Your task to perform on an android device: Open battery settings Image 0: 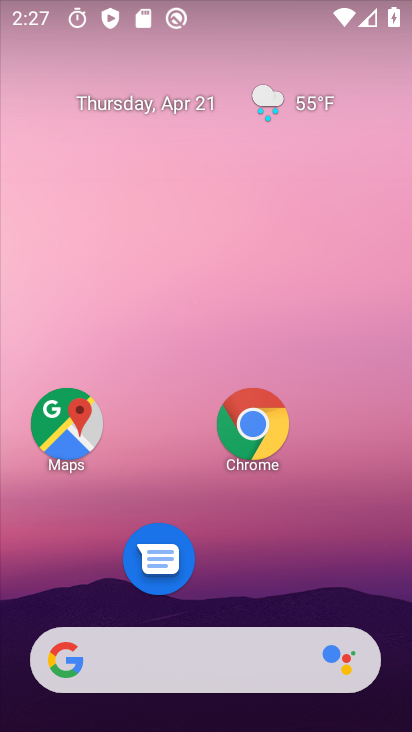
Step 0: drag from (246, 416) to (225, 94)
Your task to perform on an android device: Open battery settings Image 1: 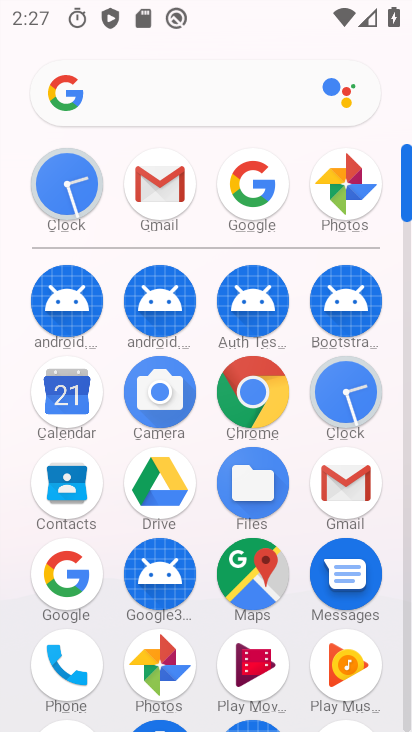
Step 1: drag from (200, 453) to (197, 181)
Your task to perform on an android device: Open battery settings Image 2: 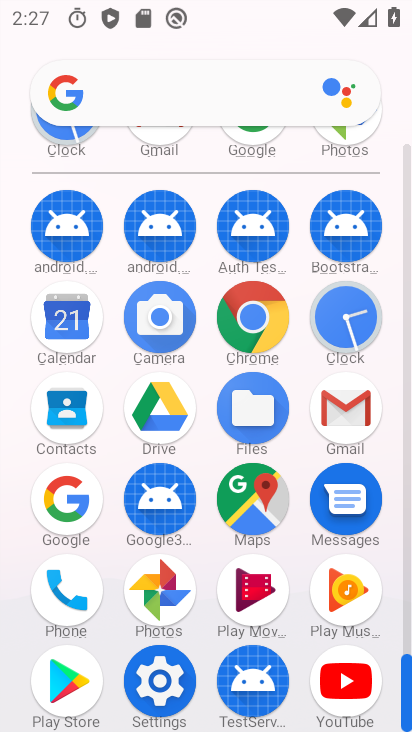
Step 2: click (166, 672)
Your task to perform on an android device: Open battery settings Image 3: 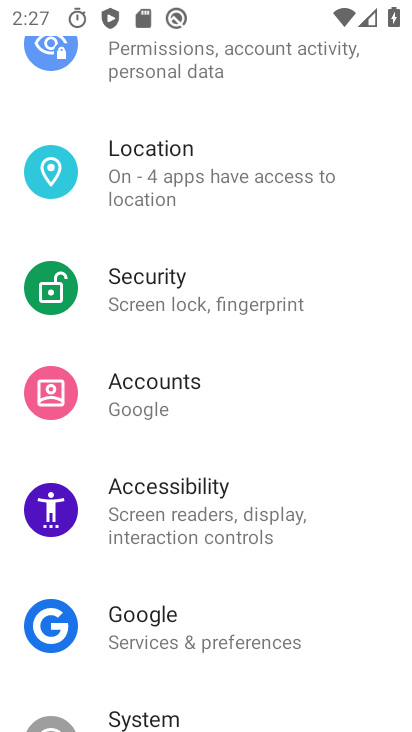
Step 3: drag from (206, 234) to (202, 590)
Your task to perform on an android device: Open battery settings Image 4: 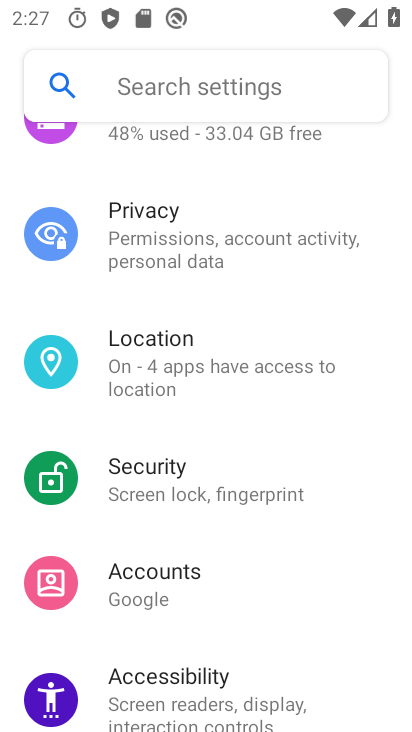
Step 4: drag from (204, 171) to (185, 656)
Your task to perform on an android device: Open battery settings Image 5: 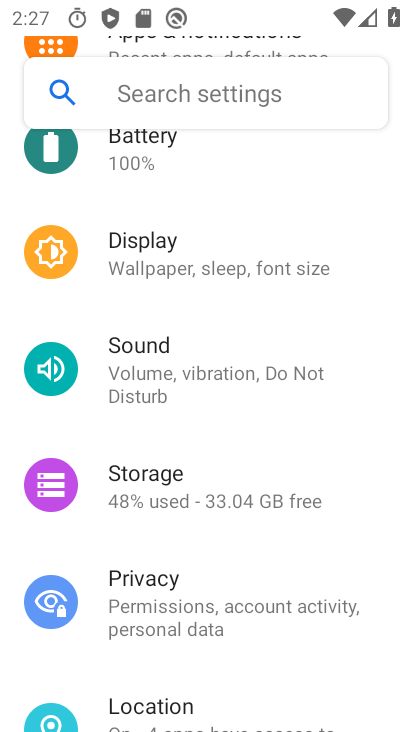
Step 5: click (178, 150)
Your task to perform on an android device: Open battery settings Image 6: 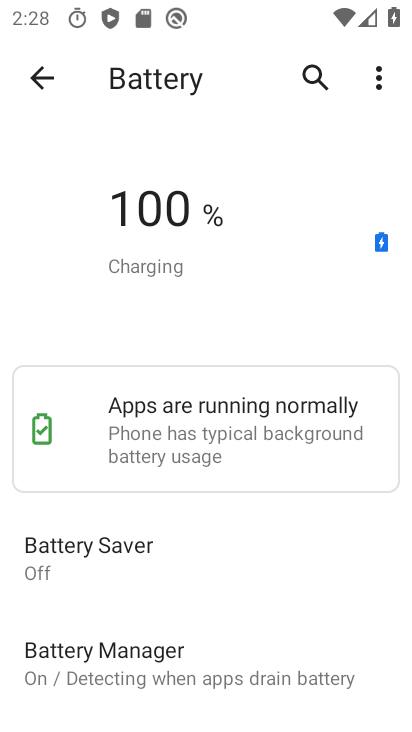
Step 6: task complete